Your task to perform on an android device: allow notifications from all sites in the chrome app Image 0: 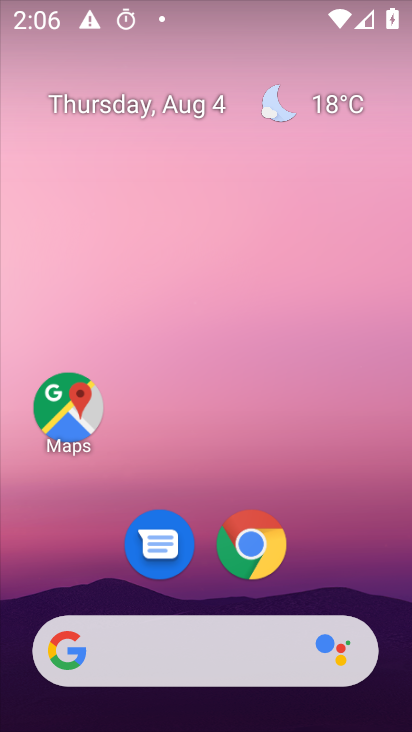
Step 0: click (311, 549)
Your task to perform on an android device: allow notifications from all sites in the chrome app Image 1: 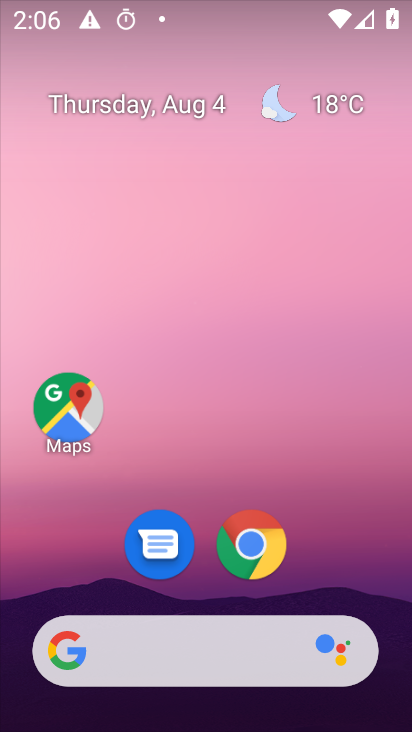
Step 1: click (240, 543)
Your task to perform on an android device: allow notifications from all sites in the chrome app Image 2: 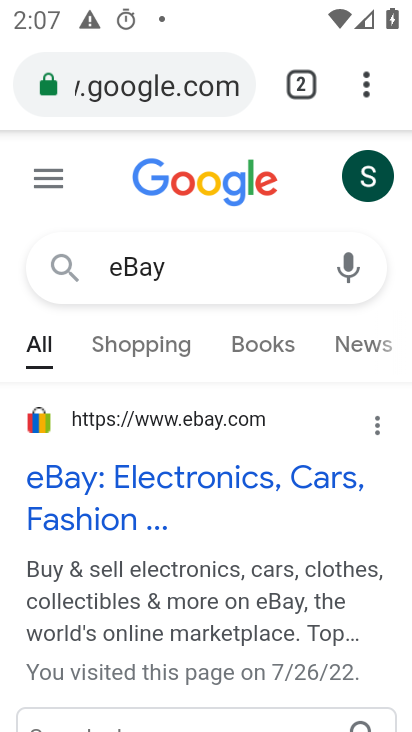
Step 2: click (360, 83)
Your task to perform on an android device: allow notifications from all sites in the chrome app Image 3: 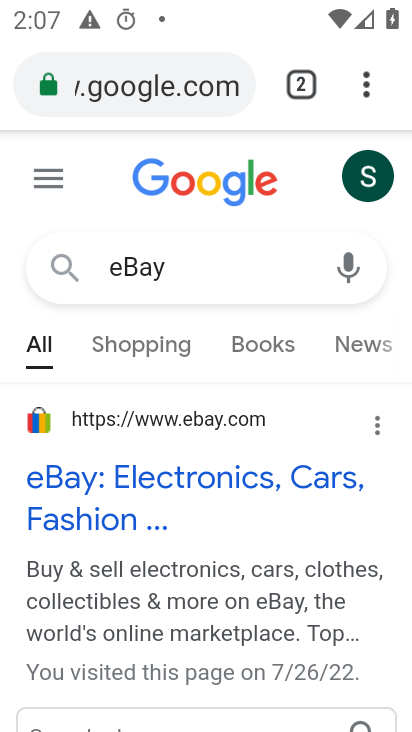
Step 3: drag from (271, 654) to (287, 447)
Your task to perform on an android device: allow notifications from all sites in the chrome app Image 4: 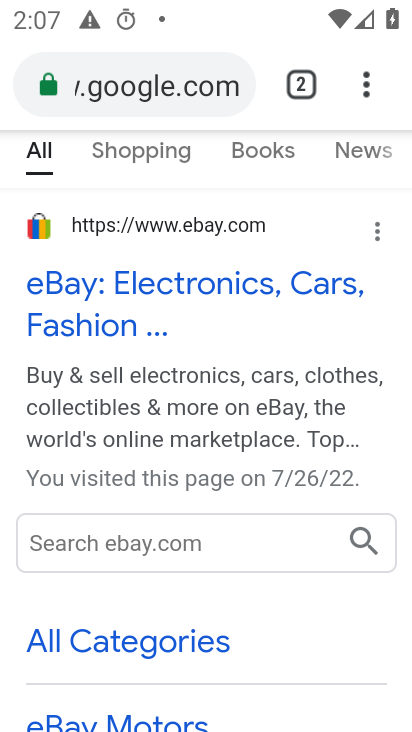
Step 4: click (365, 76)
Your task to perform on an android device: allow notifications from all sites in the chrome app Image 5: 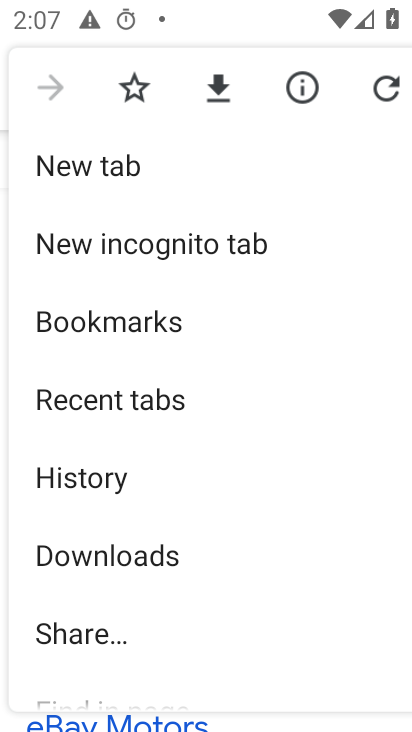
Step 5: drag from (328, 575) to (338, 389)
Your task to perform on an android device: allow notifications from all sites in the chrome app Image 6: 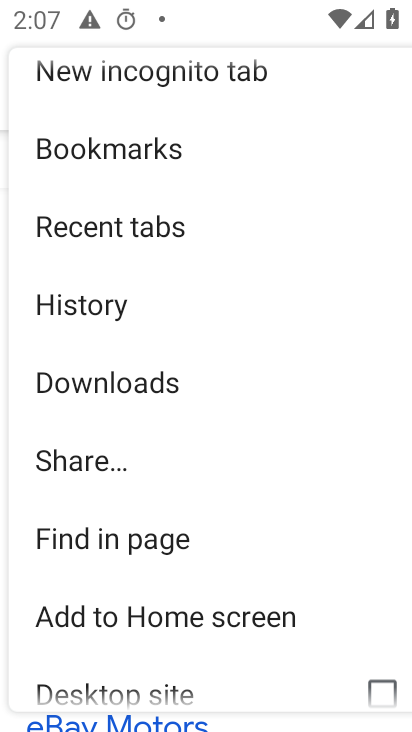
Step 6: drag from (293, 635) to (292, 321)
Your task to perform on an android device: allow notifications from all sites in the chrome app Image 7: 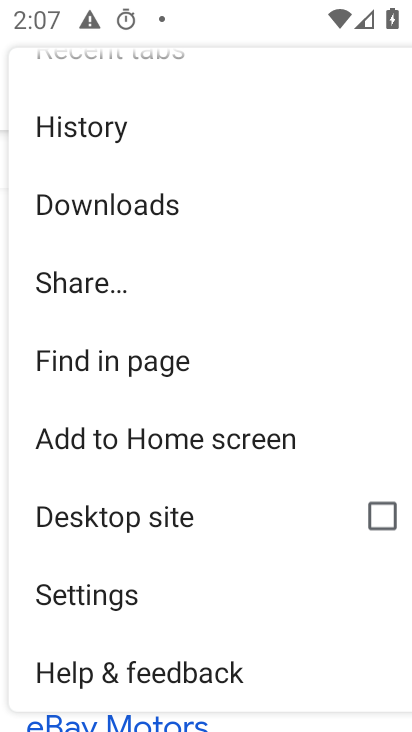
Step 7: click (96, 593)
Your task to perform on an android device: allow notifications from all sites in the chrome app Image 8: 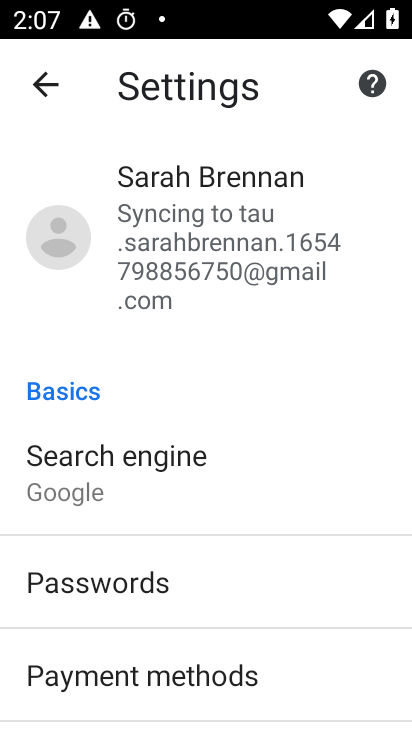
Step 8: drag from (316, 650) to (325, 433)
Your task to perform on an android device: allow notifications from all sites in the chrome app Image 9: 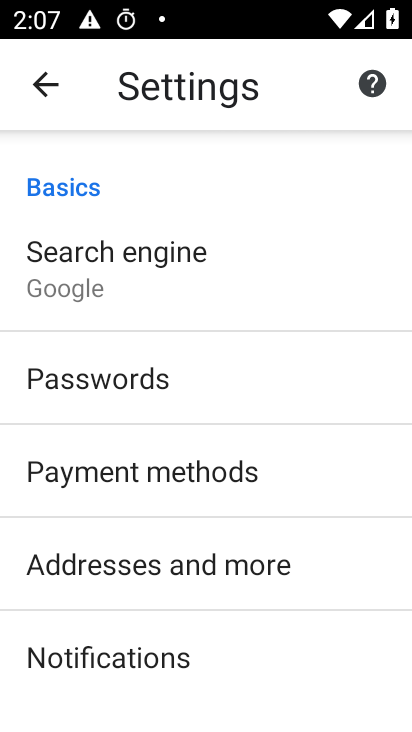
Step 9: drag from (183, 616) to (201, 419)
Your task to perform on an android device: allow notifications from all sites in the chrome app Image 10: 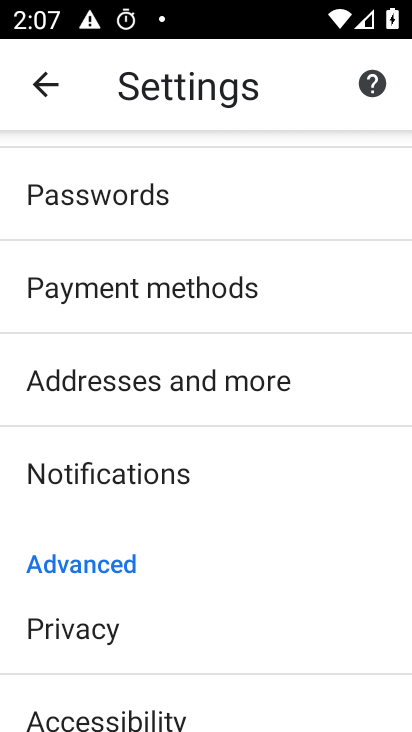
Step 10: drag from (186, 668) to (211, 376)
Your task to perform on an android device: allow notifications from all sites in the chrome app Image 11: 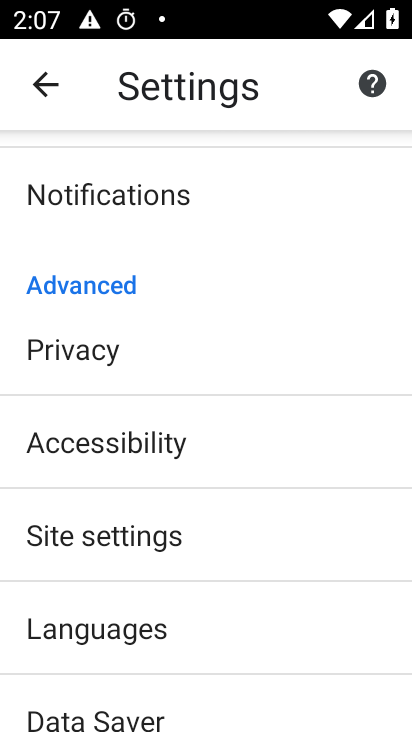
Step 11: click (152, 537)
Your task to perform on an android device: allow notifications from all sites in the chrome app Image 12: 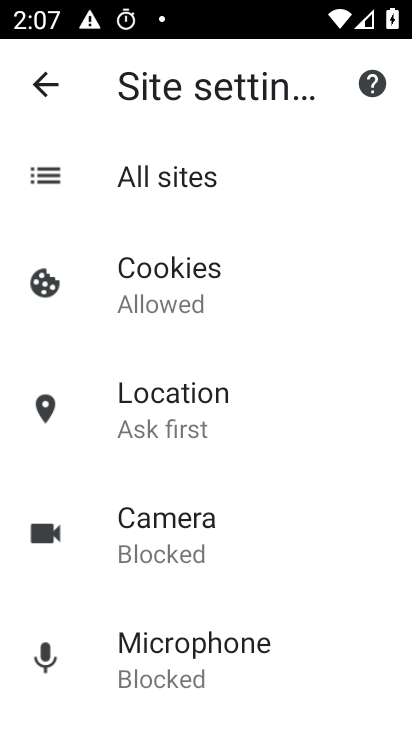
Step 12: drag from (326, 641) to (319, 299)
Your task to perform on an android device: allow notifications from all sites in the chrome app Image 13: 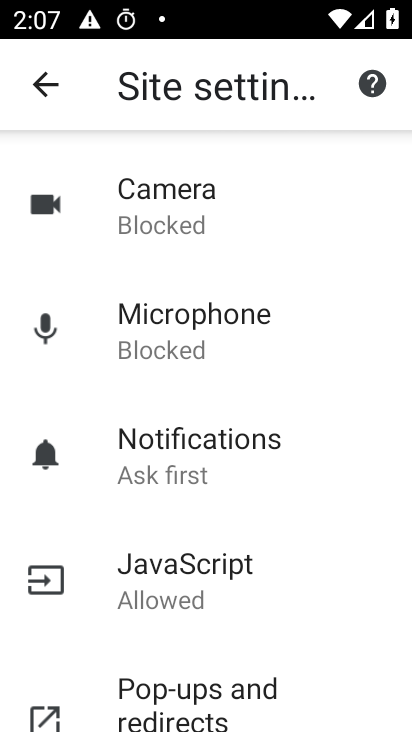
Step 13: click (181, 434)
Your task to perform on an android device: allow notifications from all sites in the chrome app Image 14: 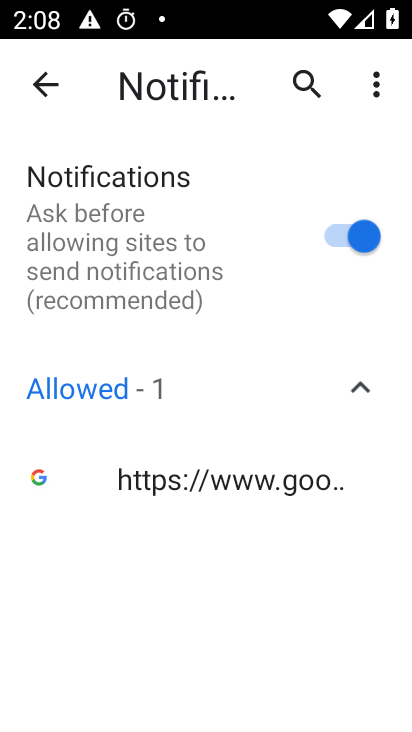
Step 14: task complete